Your task to perform on an android device: Open internet settings Image 0: 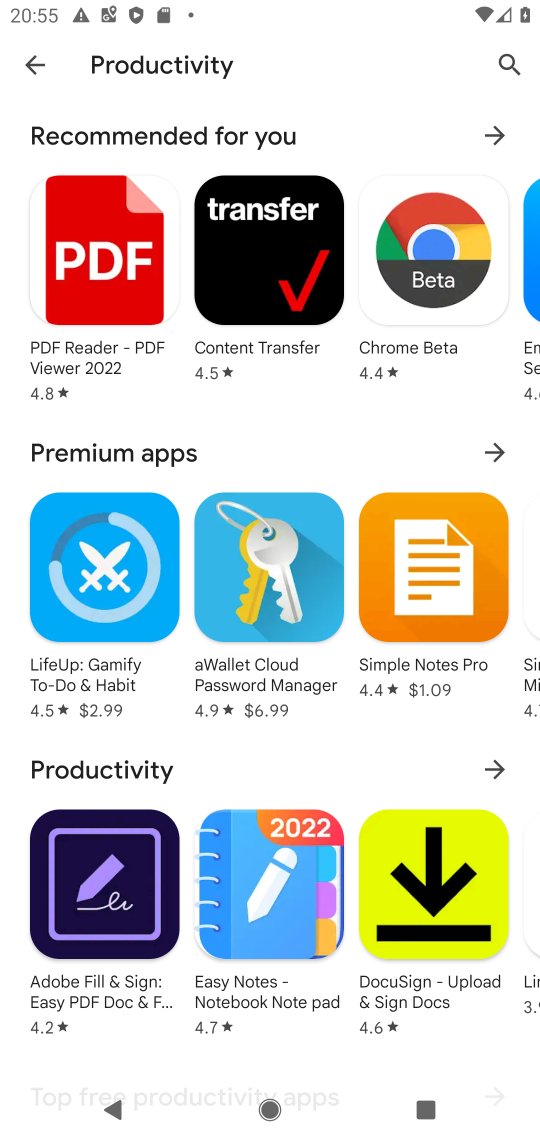
Step 0: press home button
Your task to perform on an android device: Open internet settings Image 1: 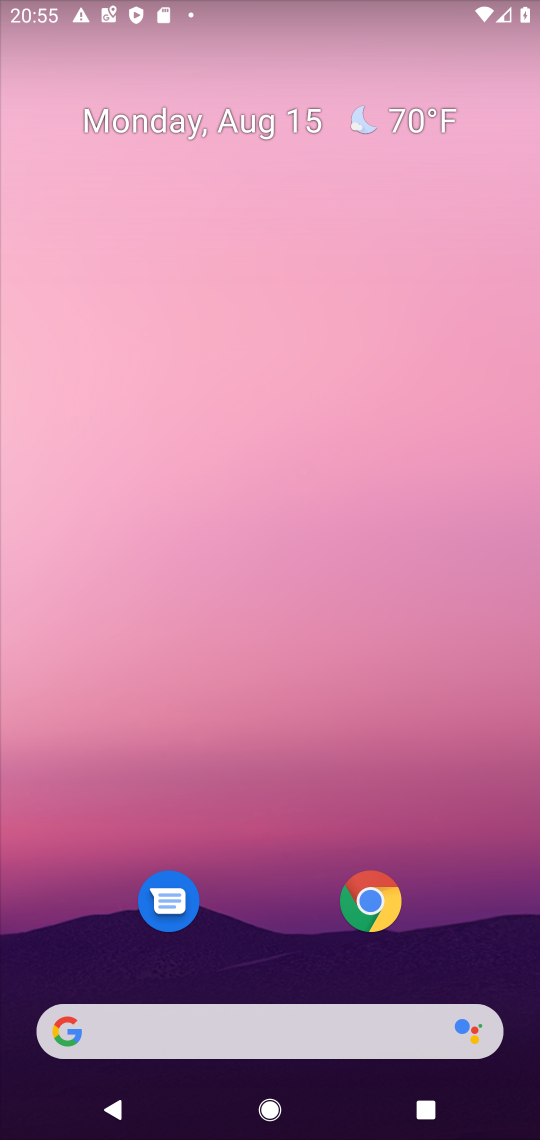
Step 1: drag from (236, 966) to (192, 216)
Your task to perform on an android device: Open internet settings Image 2: 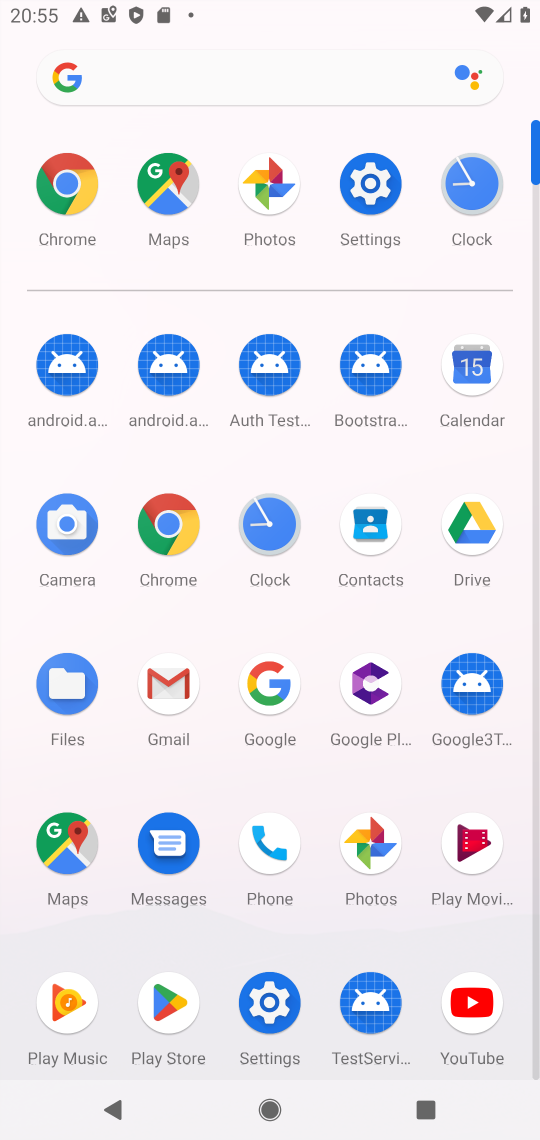
Step 2: click (273, 1007)
Your task to perform on an android device: Open internet settings Image 3: 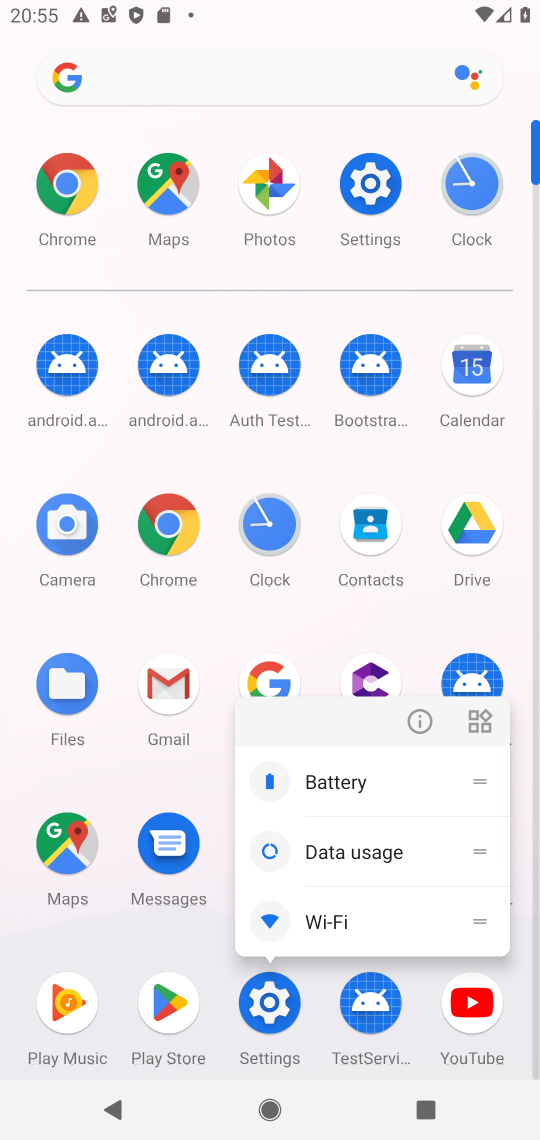
Step 3: click (265, 1008)
Your task to perform on an android device: Open internet settings Image 4: 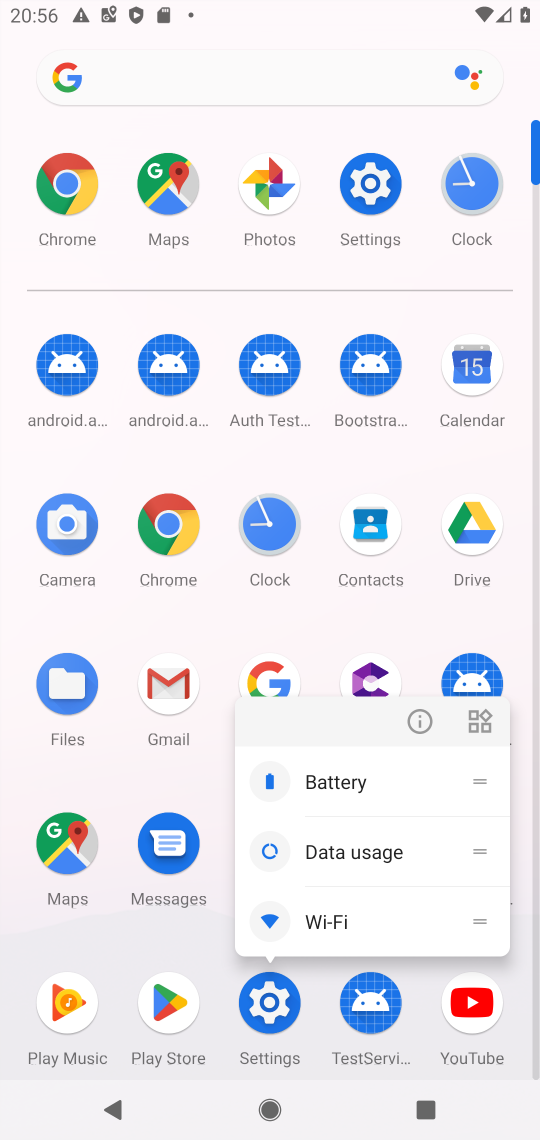
Step 4: click (268, 1013)
Your task to perform on an android device: Open internet settings Image 5: 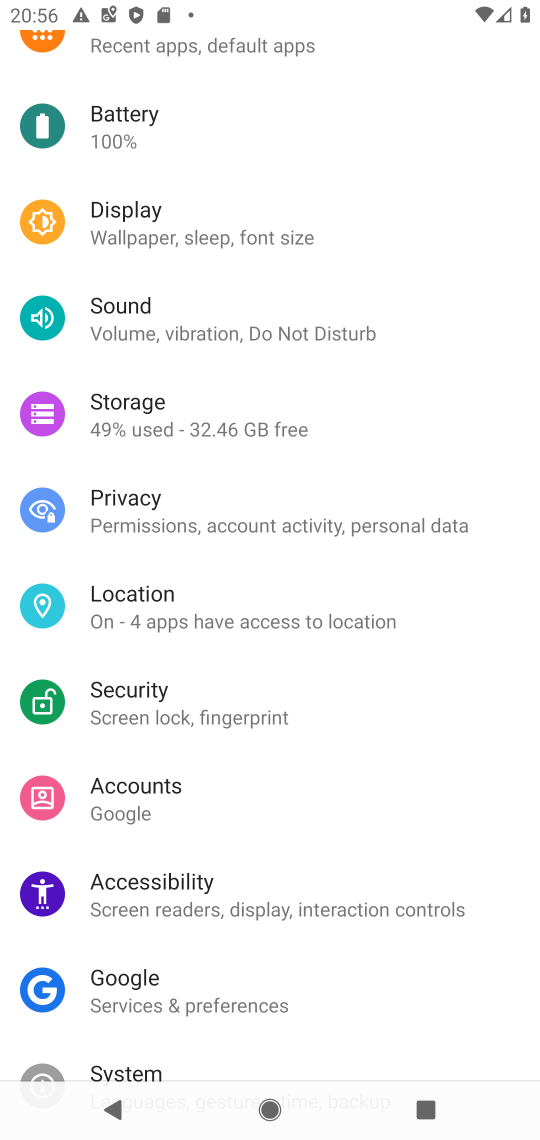
Step 5: drag from (225, 291) to (260, 458)
Your task to perform on an android device: Open internet settings Image 6: 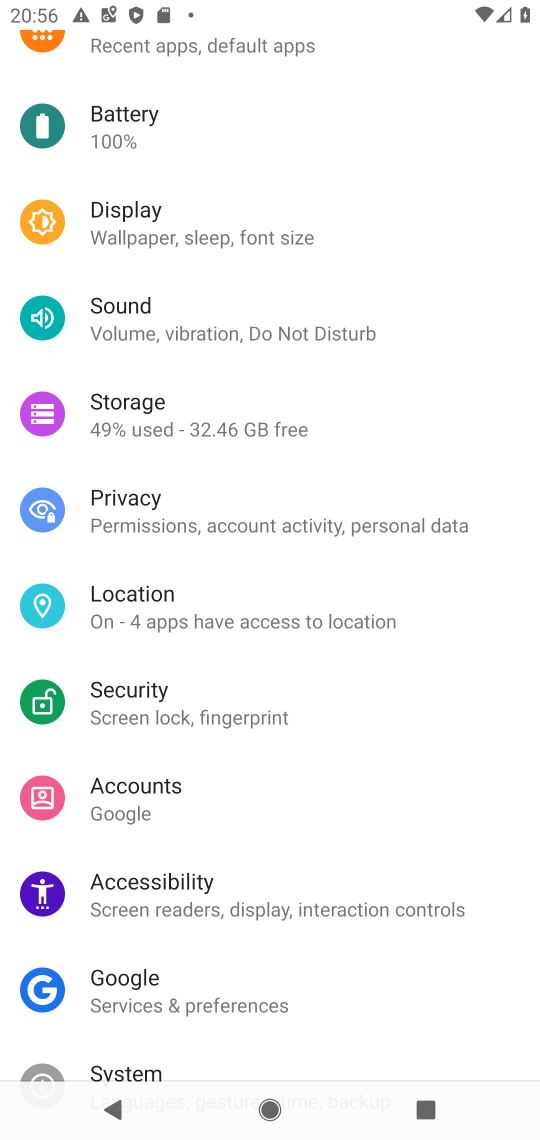
Step 6: drag from (273, 266) to (276, 813)
Your task to perform on an android device: Open internet settings Image 7: 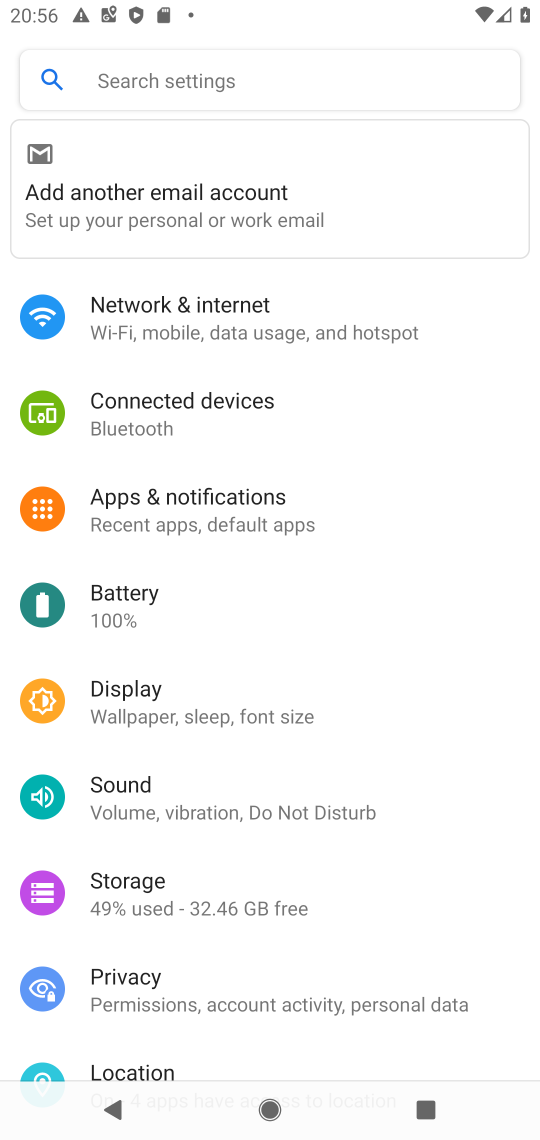
Step 7: click (194, 333)
Your task to perform on an android device: Open internet settings Image 8: 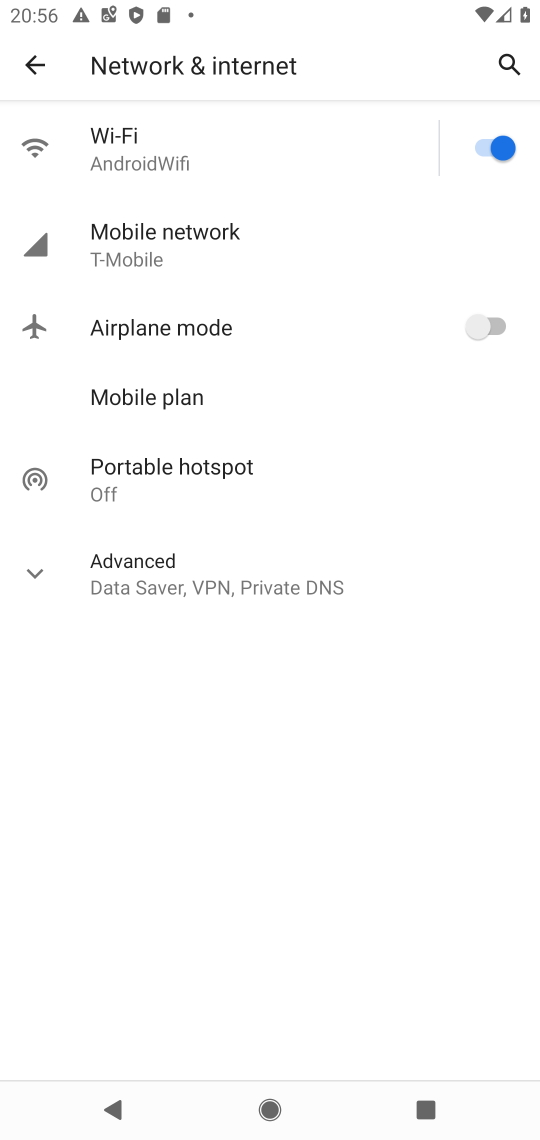
Step 8: task complete